Your task to perform on an android device: star an email in the gmail app Image 0: 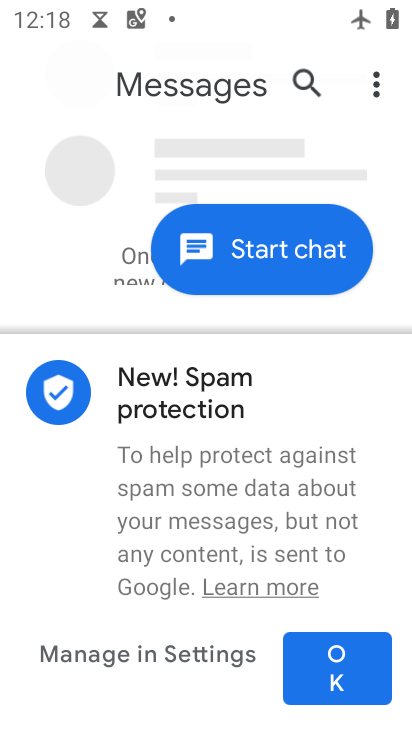
Step 0: press home button
Your task to perform on an android device: star an email in the gmail app Image 1: 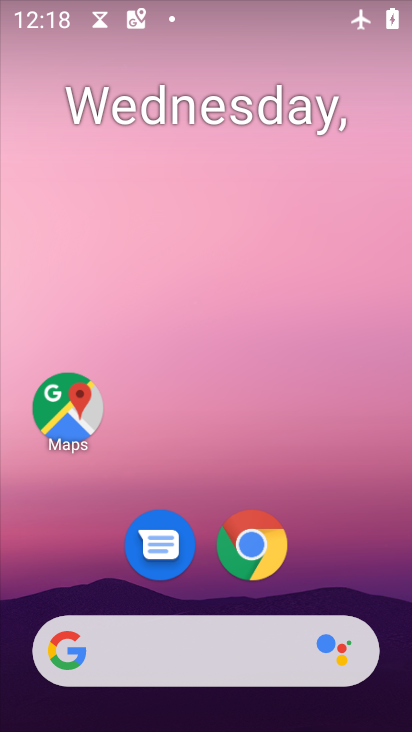
Step 1: drag from (364, 566) to (390, 64)
Your task to perform on an android device: star an email in the gmail app Image 2: 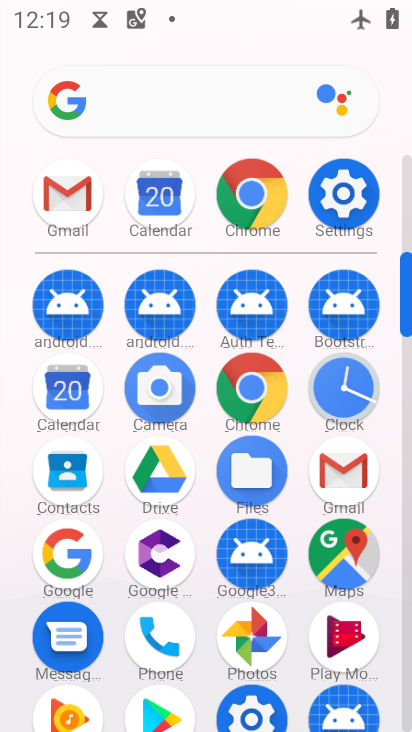
Step 2: click (74, 203)
Your task to perform on an android device: star an email in the gmail app Image 3: 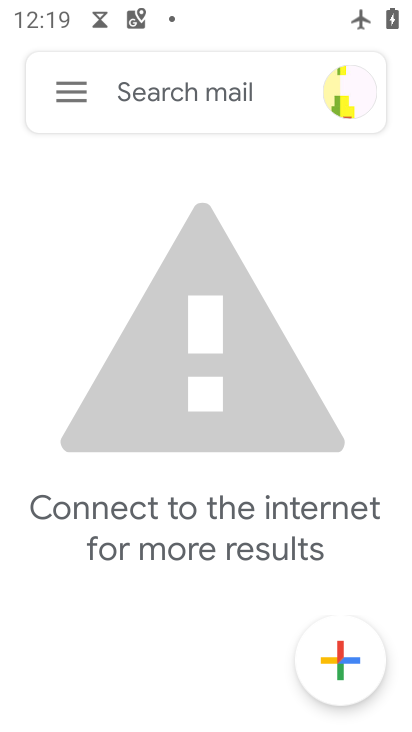
Step 3: task complete